Your task to perform on an android device: show emergency info Image 0: 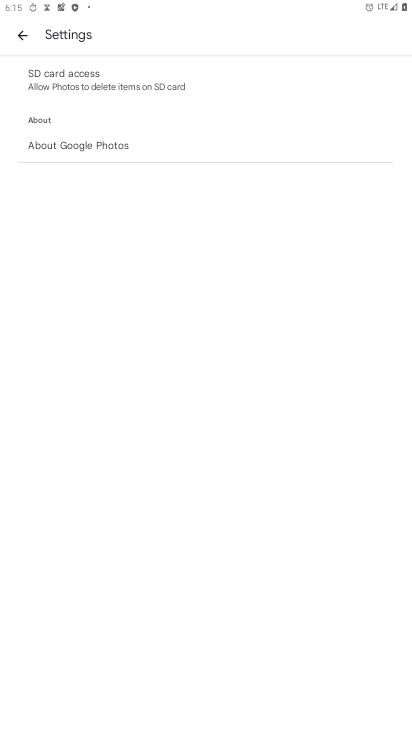
Step 0: press home button
Your task to perform on an android device: show emergency info Image 1: 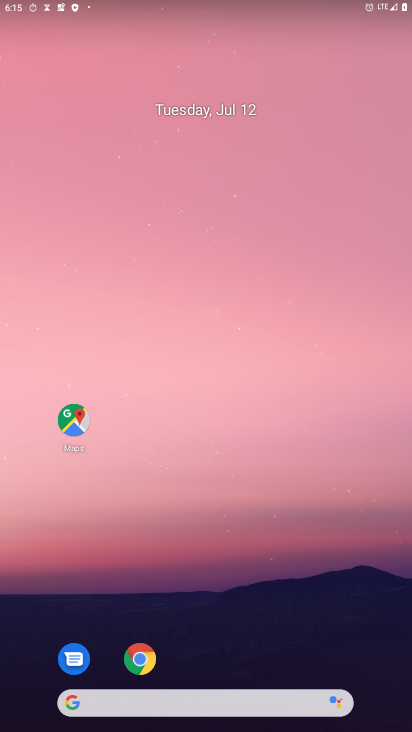
Step 1: drag from (214, 387) to (214, 22)
Your task to perform on an android device: show emergency info Image 2: 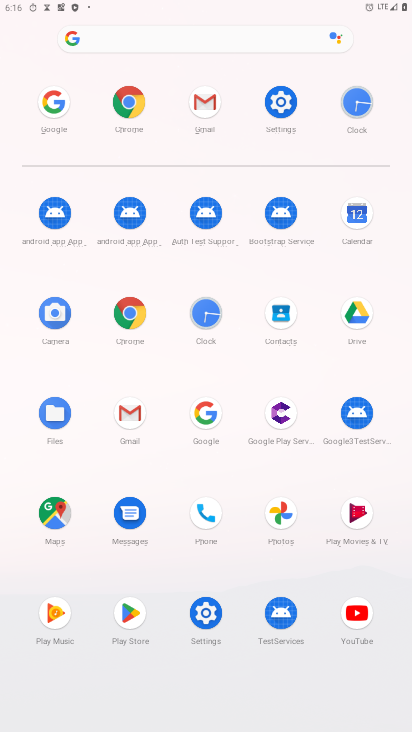
Step 2: click (268, 106)
Your task to perform on an android device: show emergency info Image 3: 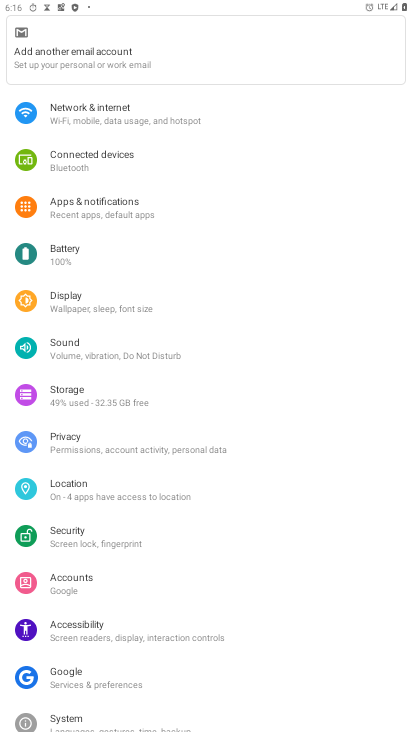
Step 3: drag from (159, 652) to (178, 447)
Your task to perform on an android device: show emergency info Image 4: 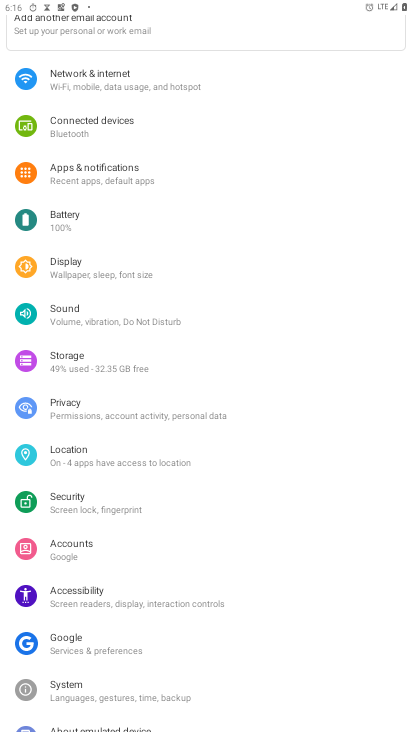
Step 4: drag from (130, 535) to (131, 458)
Your task to perform on an android device: show emergency info Image 5: 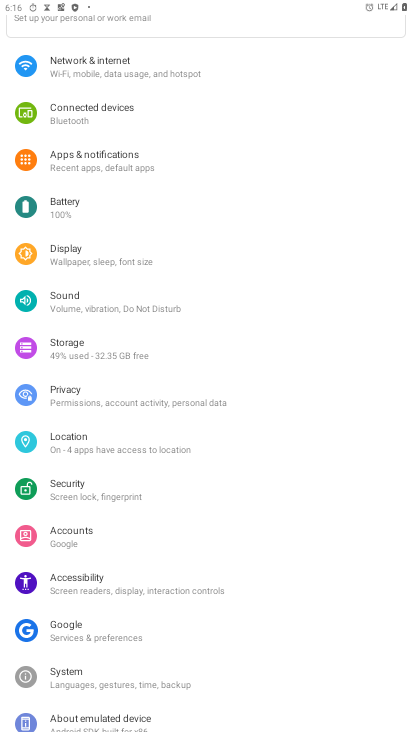
Step 5: click (79, 716)
Your task to perform on an android device: show emergency info Image 6: 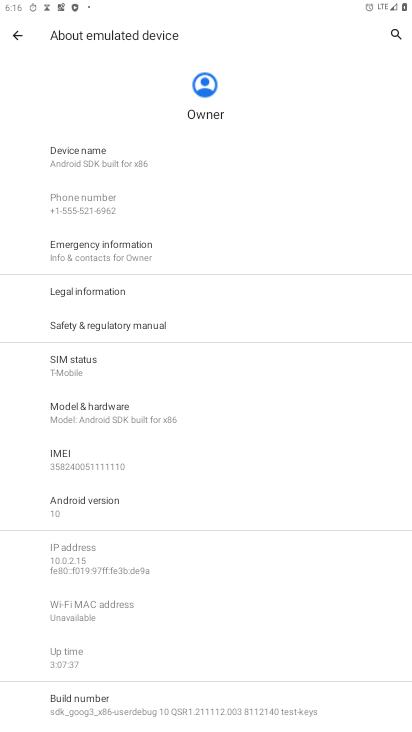
Step 6: click (107, 251)
Your task to perform on an android device: show emergency info Image 7: 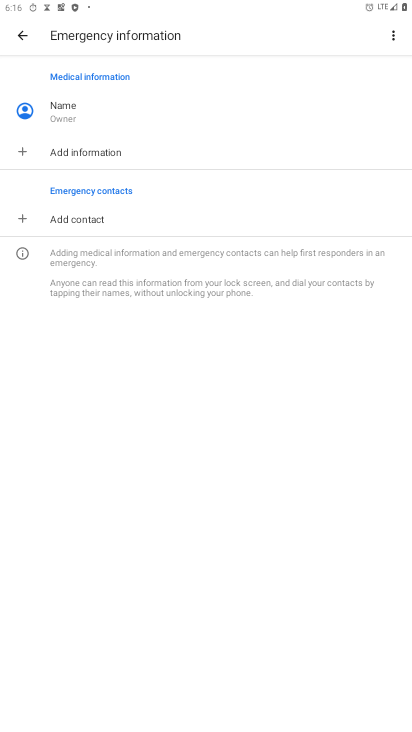
Step 7: task complete